Your task to perform on an android device: toggle notification dots Image 0: 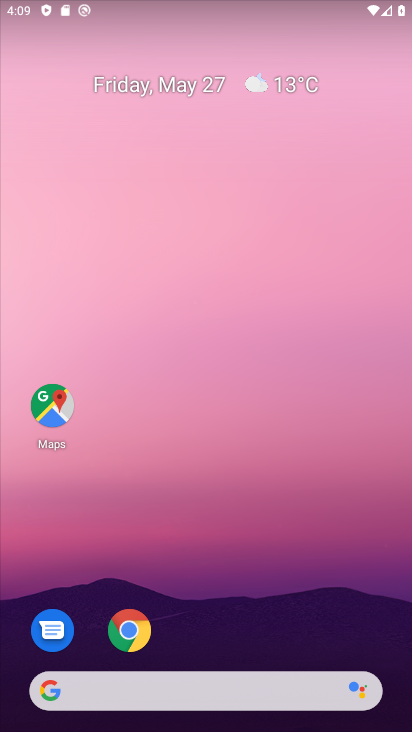
Step 0: drag from (230, 572) to (236, 60)
Your task to perform on an android device: toggle notification dots Image 1: 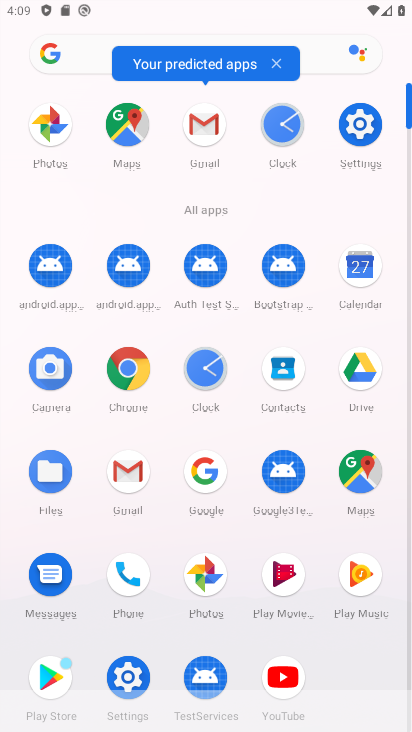
Step 1: click (359, 132)
Your task to perform on an android device: toggle notification dots Image 2: 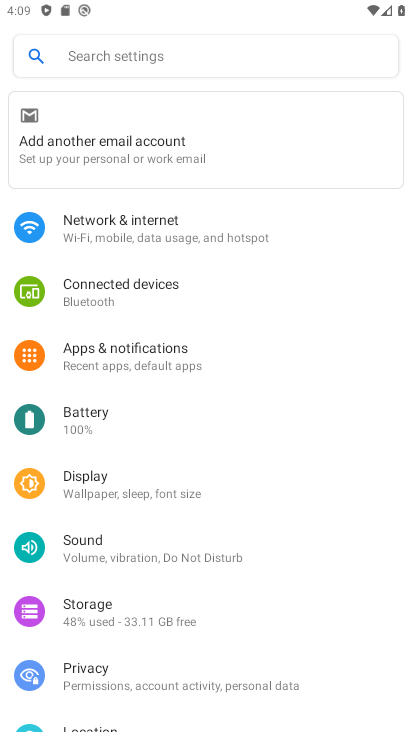
Step 2: click (127, 363)
Your task to perform on an android device: toggle notification dots Image 3: 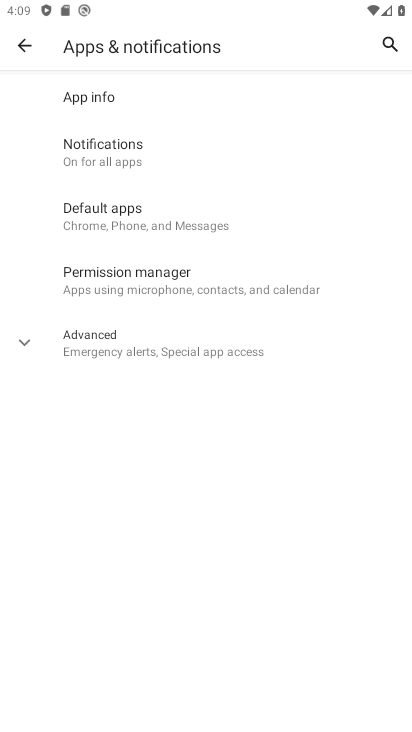
Step 3: click (115, 157)
Your task to perform on an android device: toggle notification dots Image 4: 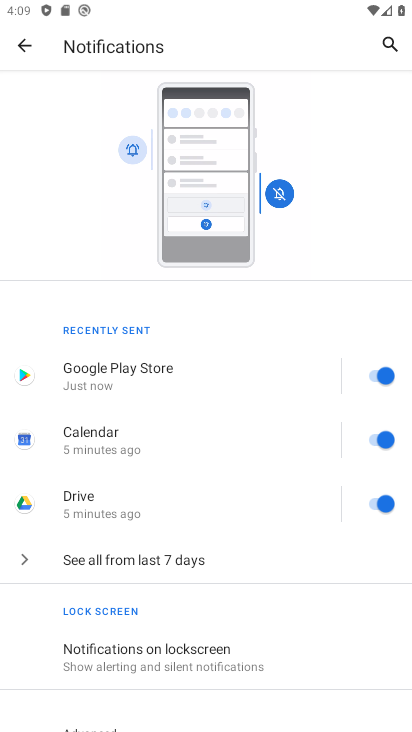
Step 4: drag from (175, 662) to (228, 174)
Your task to perform on an android device: toggle notification dots Image 5: 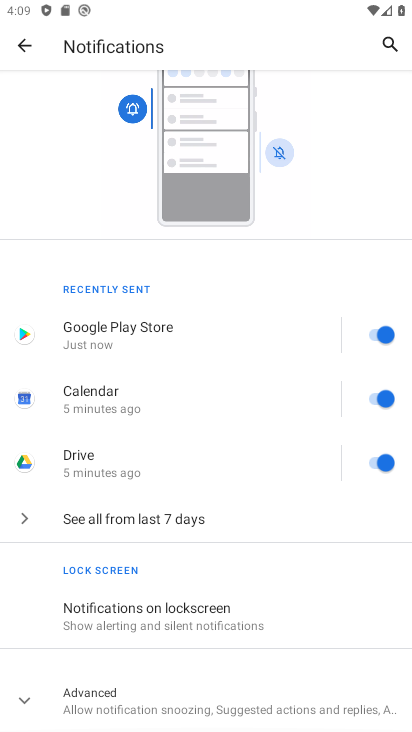
Step 5: click (104, 706)
Your task to perform on an android device: toggle notification dots Image 6: 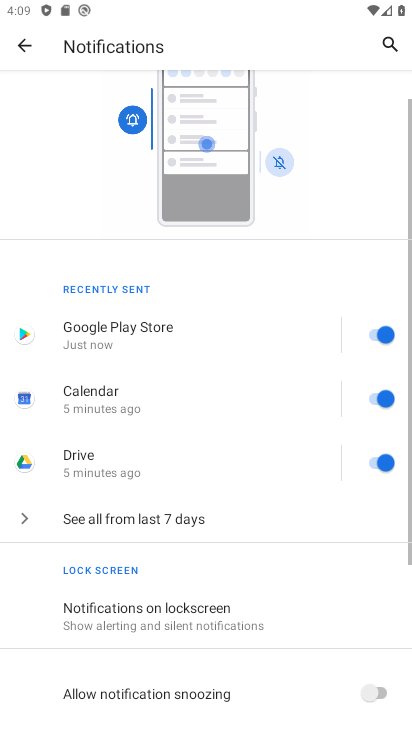
Step 6: drag from (131, 684) to (192, 220)
Your task to perform on an android device: toggle notification dots Image 7: 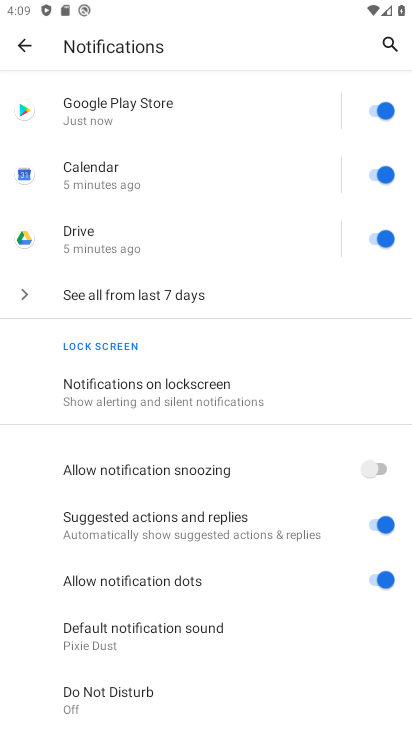
Step 7: click (384, 578)
Your task to perform on an android device: toggle notification dots Image 8: 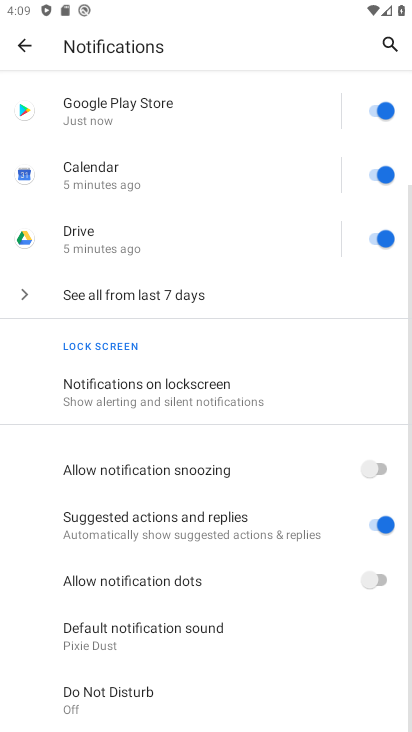
Step 8: task complete